Your task to perform on an android device: Show me recent news Image 0: 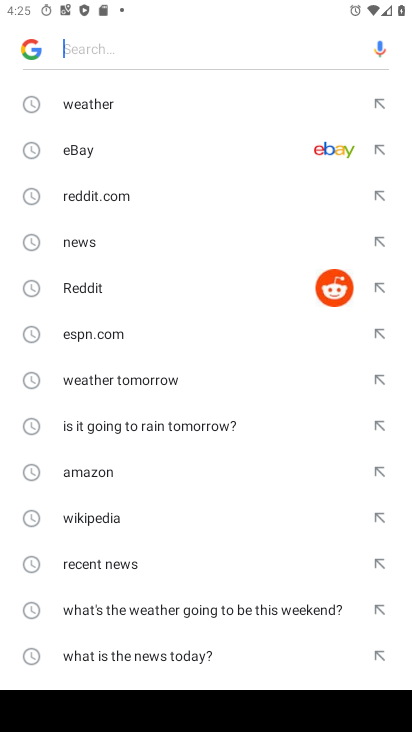
Step 0: click (108, 571)
Your task to perform on an android device: Show me recent news Image 1: 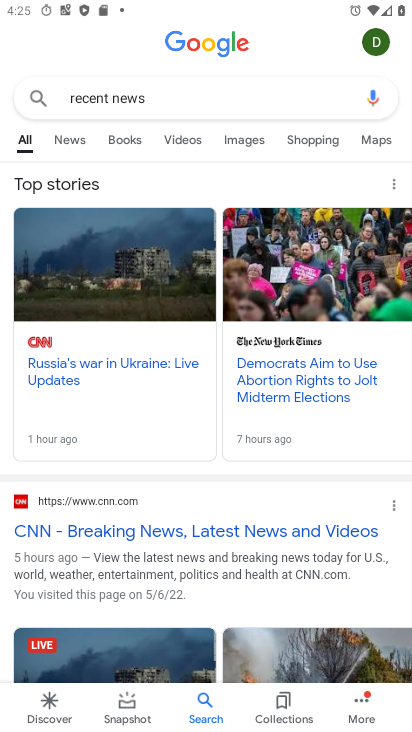
Step 1: task complete